Your task to perform on an android device: What's the news this week? Image 0: 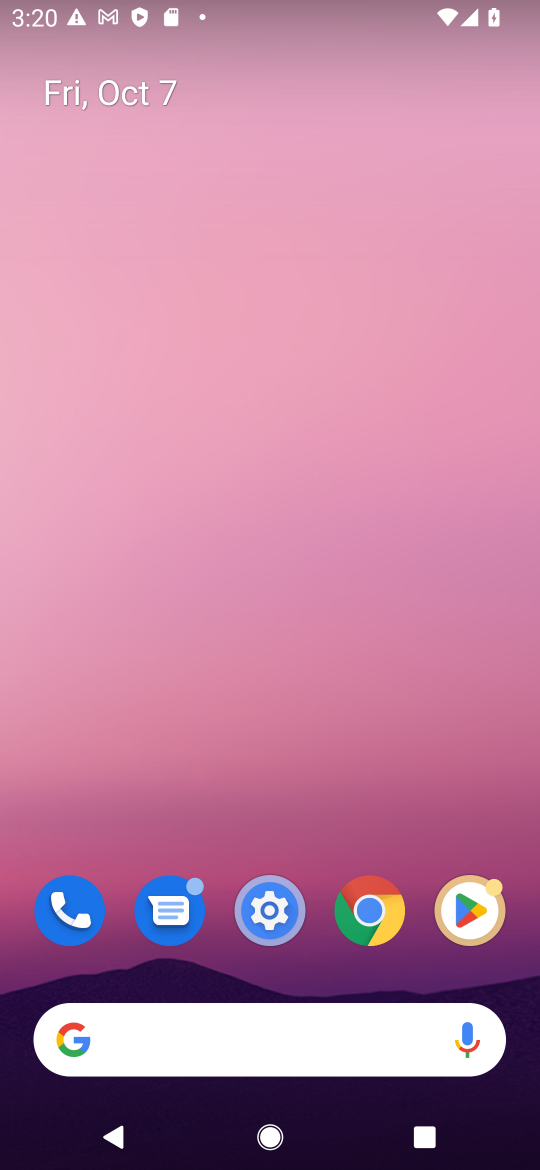
Step 0: click (236, 1036)
Your task to perform on an android device: What's the news this week? Image 1: 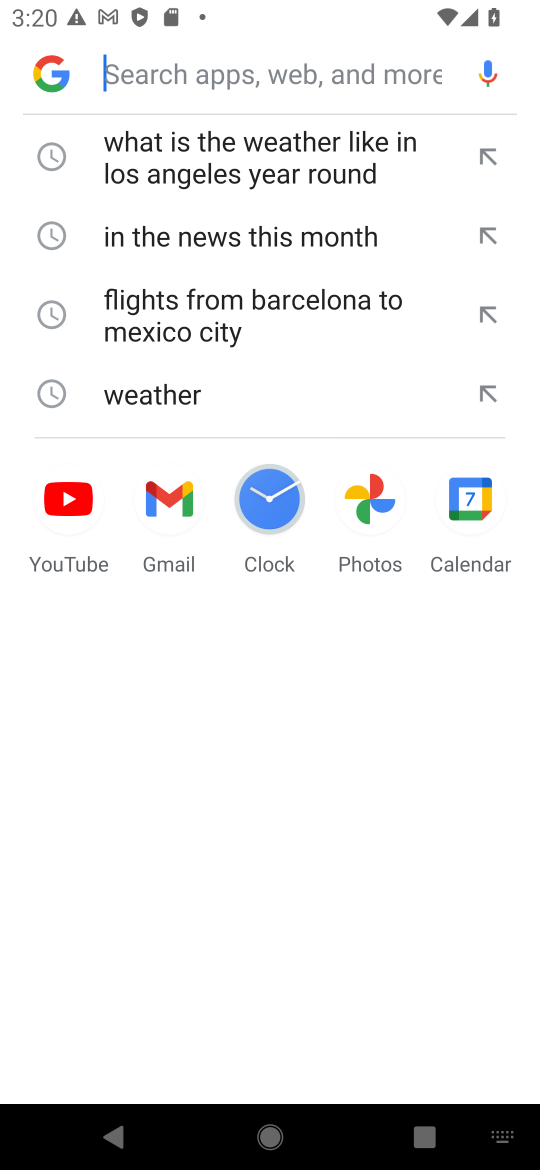
Step 1: type "the news this week"
Your task to perform on an android device: What's the news this week? Image 2: 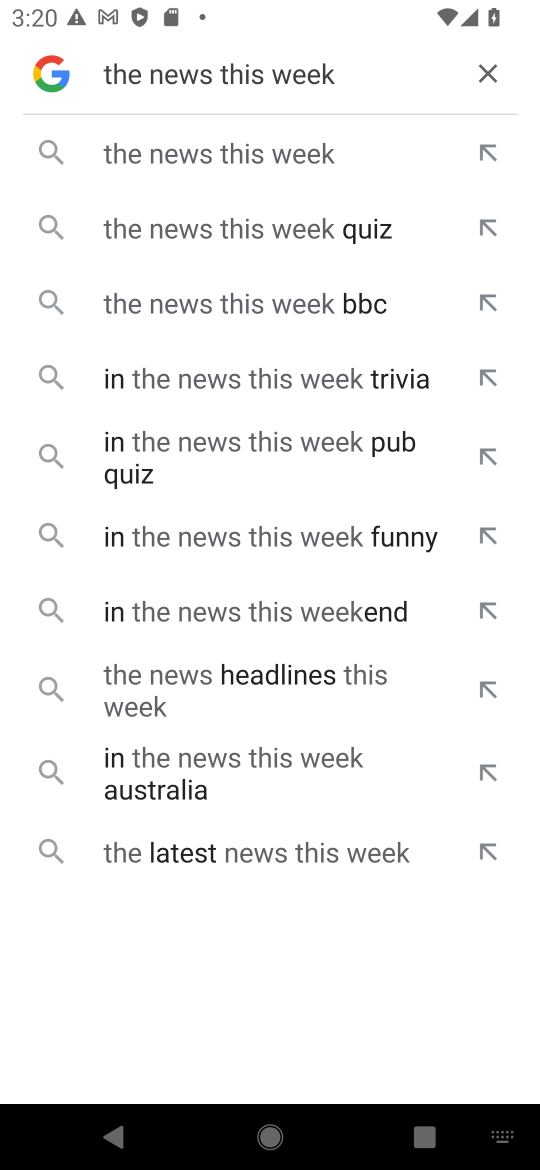
Step 2: click (290, 151)
Your task to perform on an android device: What's the news this week? Image 3: 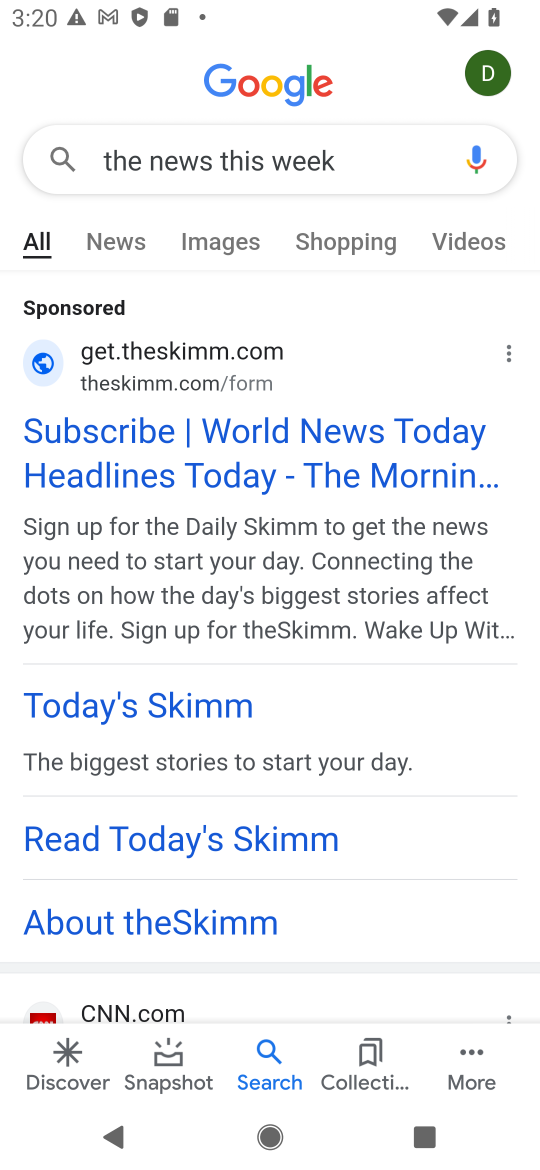
Step 3: task complete